Your task to perform on an android device: Go to Google maps Image 0: 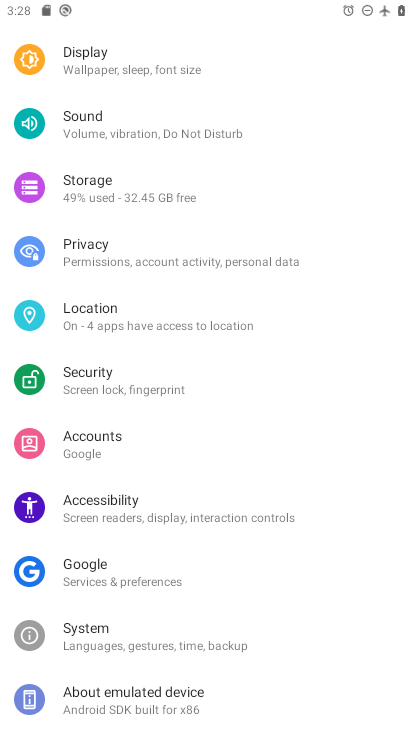
Step 0: press home button
Your task to perform on an android device: Go to Google maps Image 1: 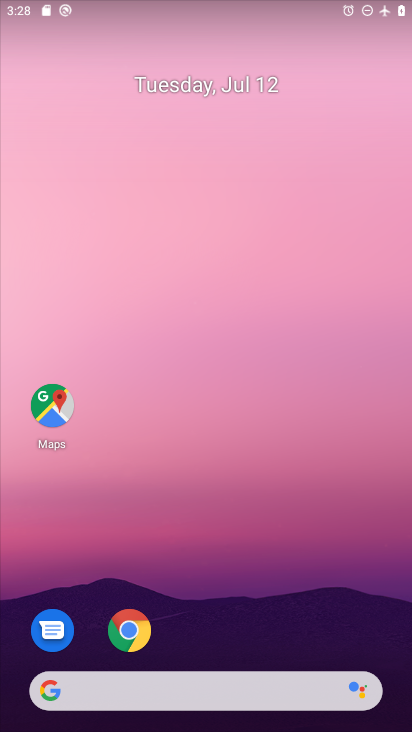
Step 1: click (53, 420)
Your task to perform on an android device: Go to Google maps Image 2: 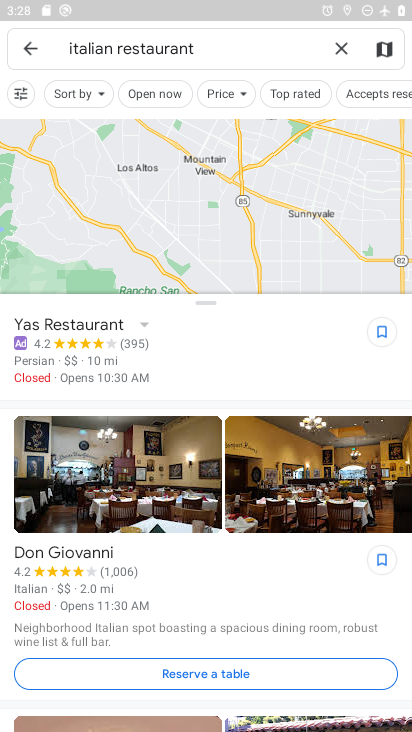
Step 2: task complete